Your task to perform on an android device: Open sound settings Image 0: 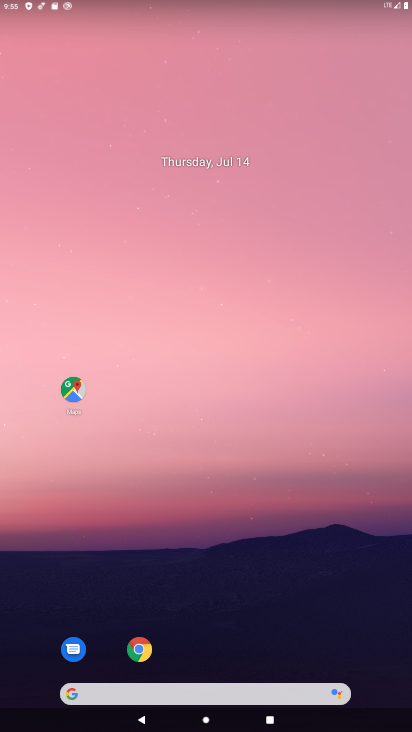
Step 0: drag from (194, 669) to (195, 232)
Your task to perform on an android device: Open sound settings Image 1: 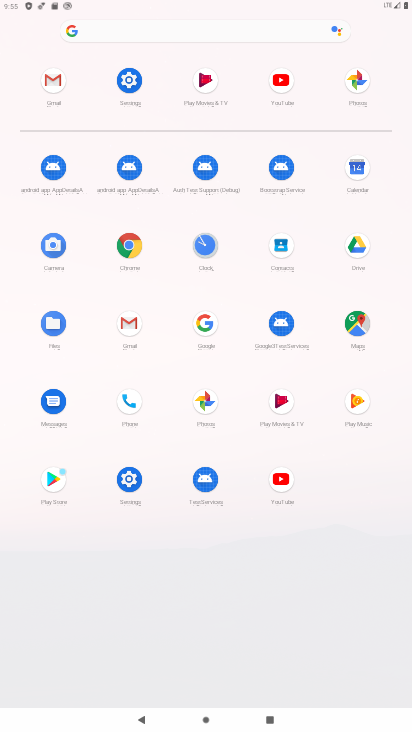
Step 1: click (138, 89)
Your task to perform on an android device: Open sound settings Image 2: 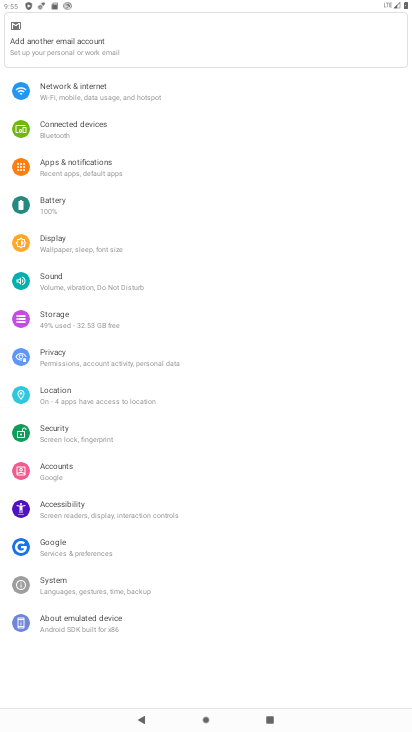
Step 2: click (82, 287)
Your task to perform on an android device: Open sound settings Image 3: 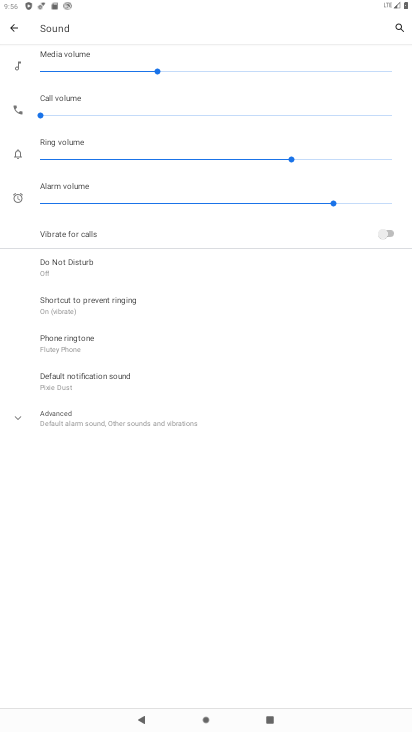
Step 3: task complete